Your task to perform on an android device: turn off picture-in-picture Image 0: 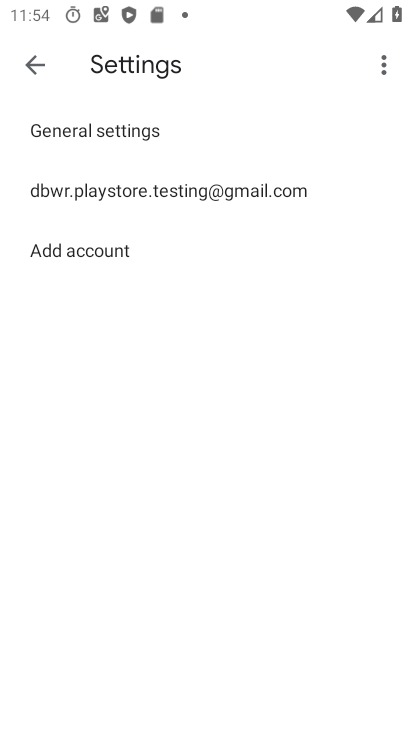
Step 0: press home button
Your task to perform on an android device: turn off picture-in-picture Image 1: 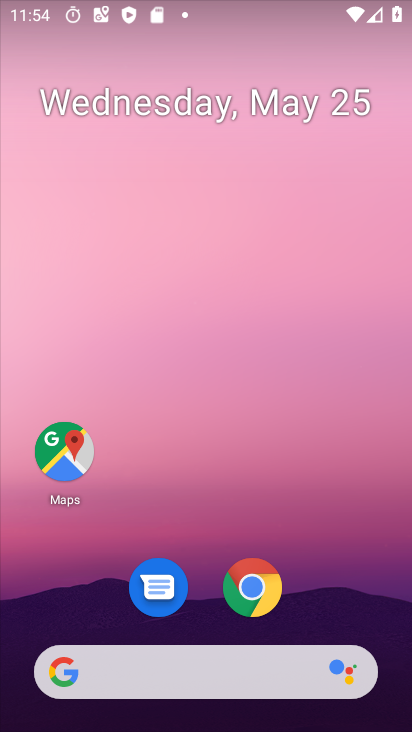
Step 1: drag from (255, 694) to (233, 244)
Your task to perform on an android device: turn off picture-in-picture Image 2: 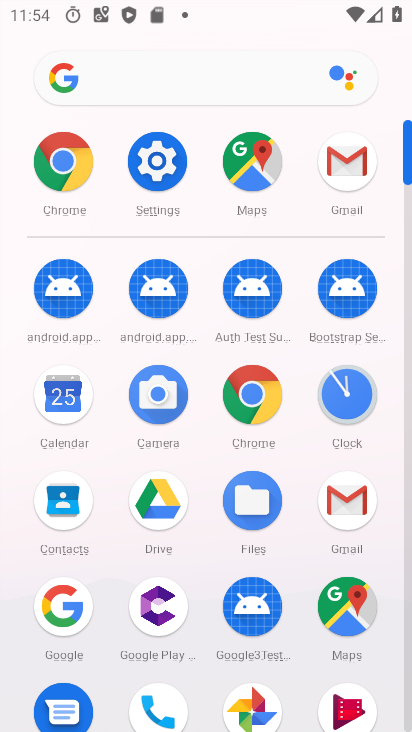
Step 2: click (145, 167)
Your task to perform on an android device: turn off picture-in-picture Image 3: 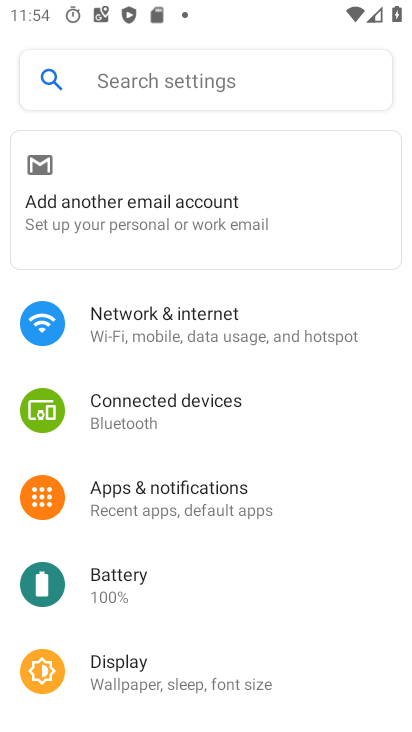
Step 3: click (160, 85)
Your task to perform on an android device: turn off picture-in-picture Image 4: 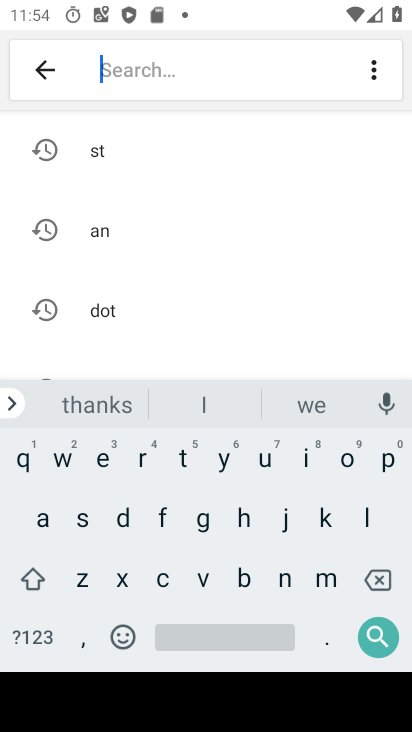
Step 4: click (375, 462)
Your task to perform on an android device: turn off picture-in-picture Image 5: 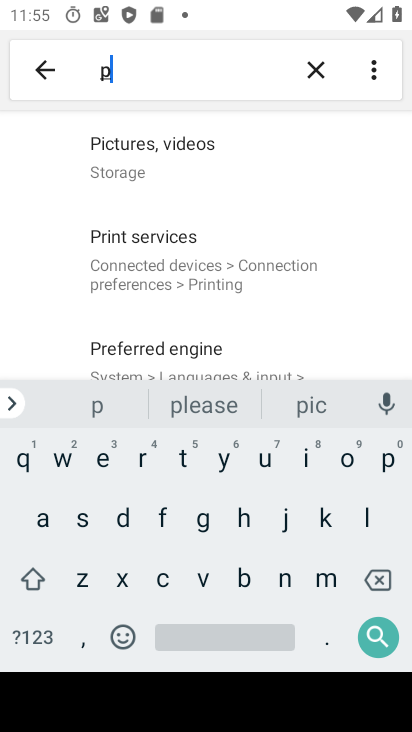
Step 5: click (304, 470)
Your task to perform on an android device: turn off picture-in-picture Image 6: 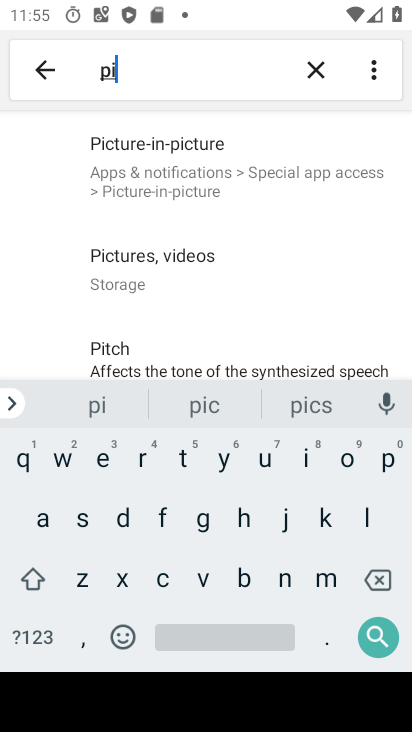
Step 6: click (220, 191)
Your task to perform on an android device: turn off picture-in-picture Image 7: 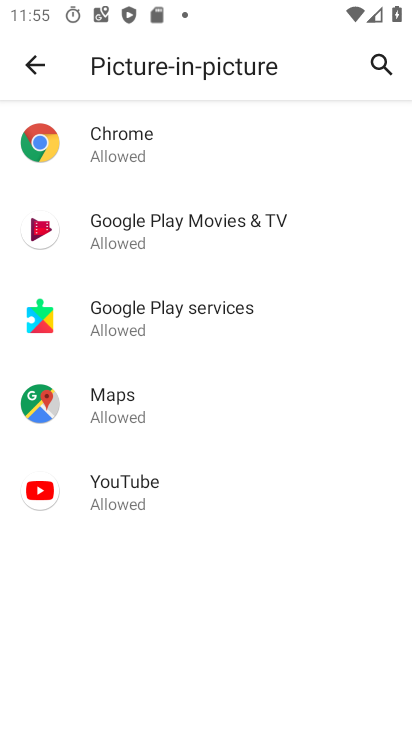
Step 7: task complete